Your task to perform on an android device: install app "ColorNote Notepad Notes" Image 0: 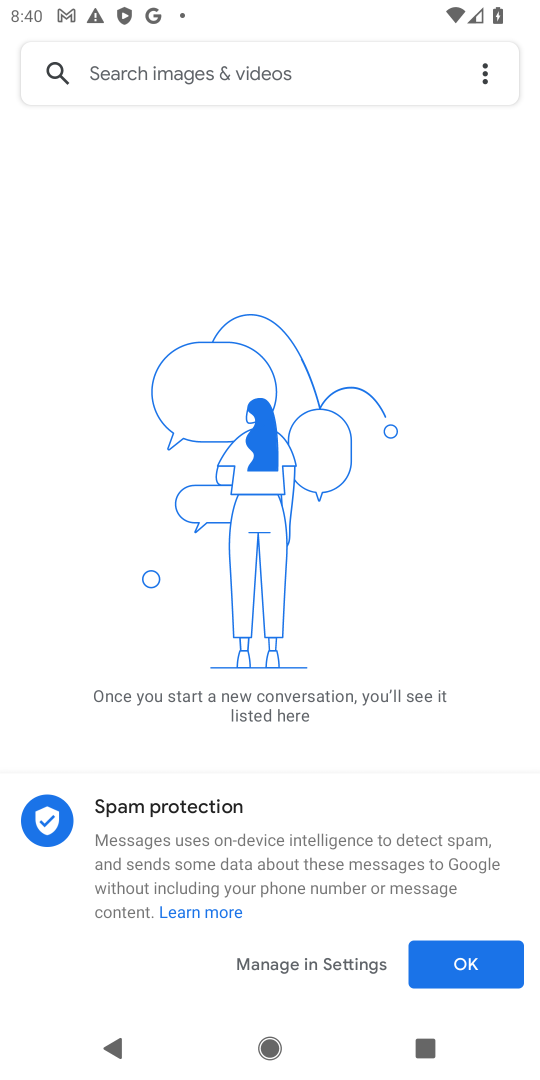
Step 0: press home button
Your task to perform on an android device: install app "ColorNote Notepad Notes" Image 1: 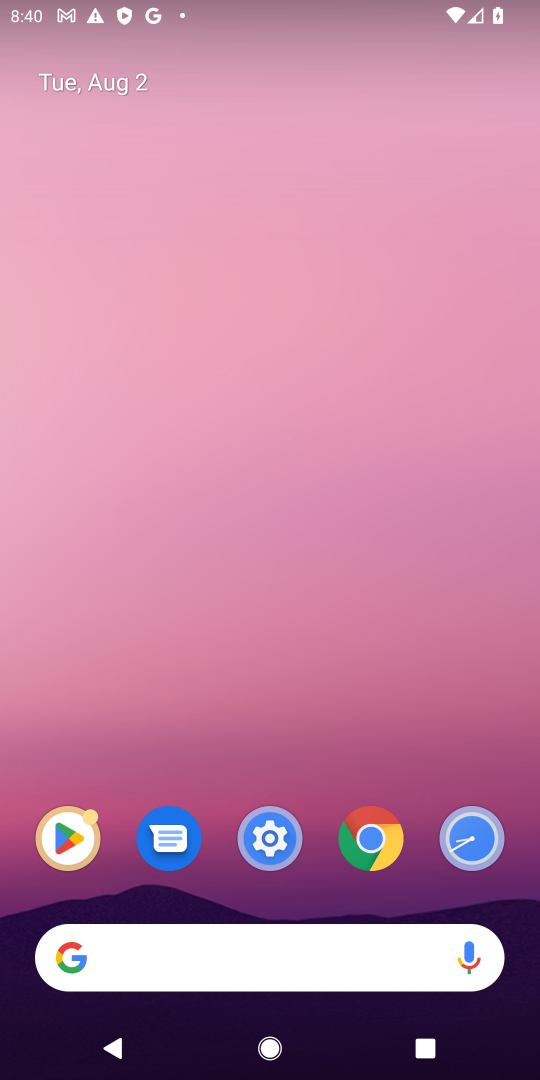
Step 1: drag from (309, 733) to (293, 39)
Your task to perform on an android device: install app "ColorNote Notepad Notes" Image 2: 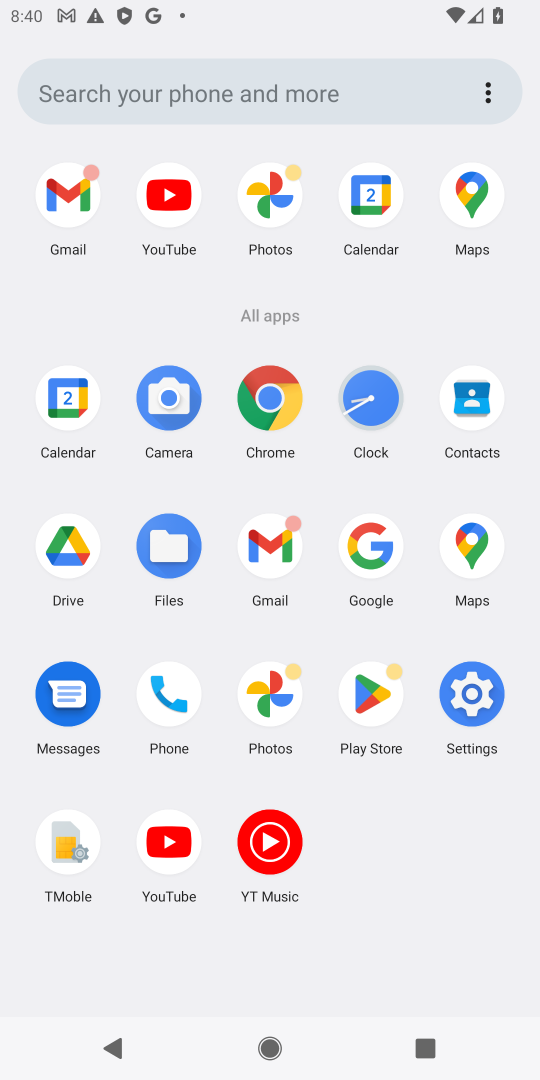
Step 2: click (368, 699)
Your task to perform on an android device: install app "ColorNote Notepad Notes" Image 3: 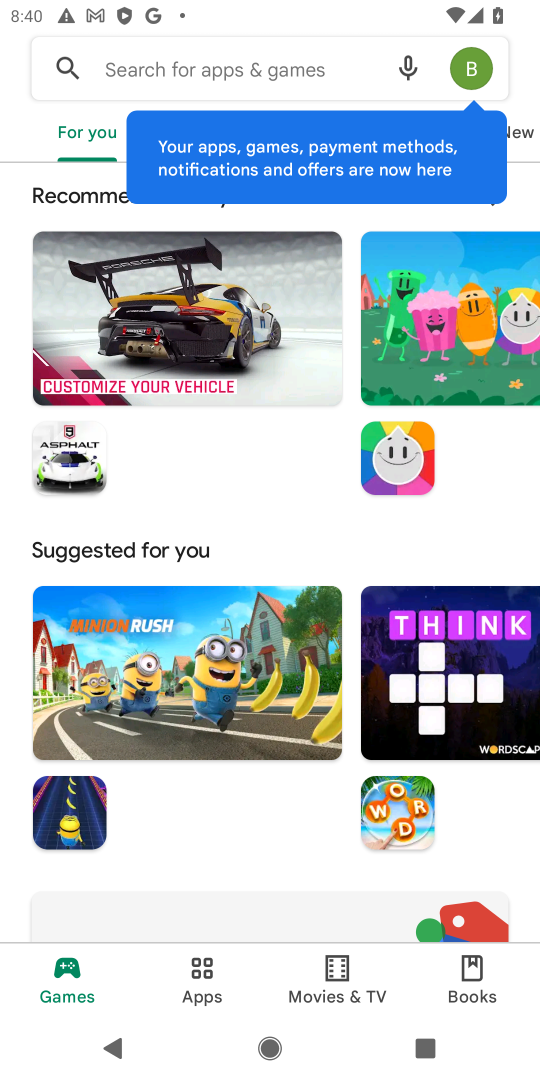
Step 3: click (309, 53)
Your task to perform on an android device: install app "ColorNote Notepad Notes" Image 4: 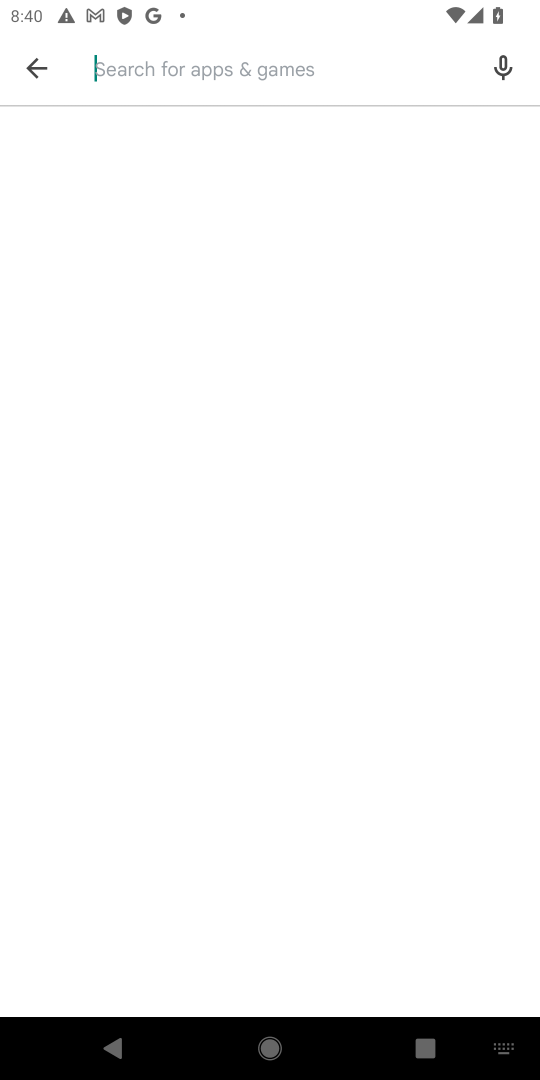
Step 4: type "ColorNote Notepad Notes"
Your task to perform on an android device: install app "ColorNote Notepad Notes" Image 5: 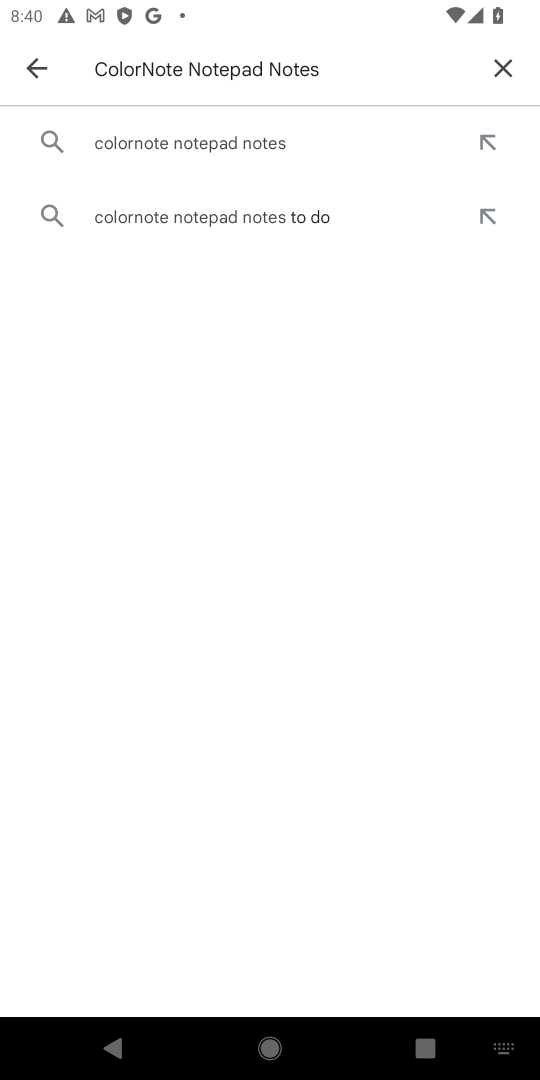
Step 5: click (256, 143)
Your task to perform on an android device: install app "ColorNote Notepad Notes" Image 6: 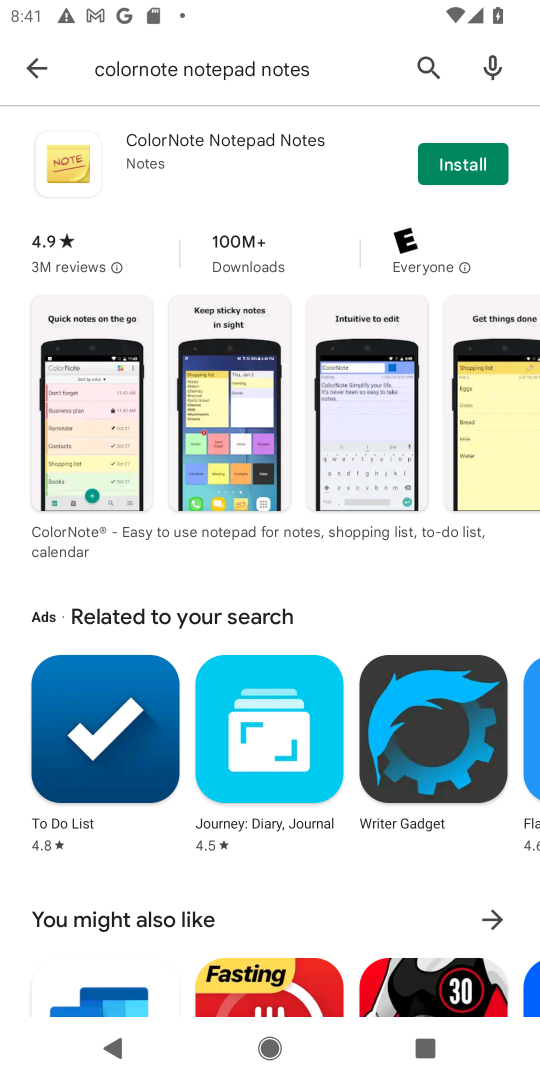
Step 6: click (457, 160)
Your task to perform on an android device: install app "ColorNote Notepad Notes" Image 7: 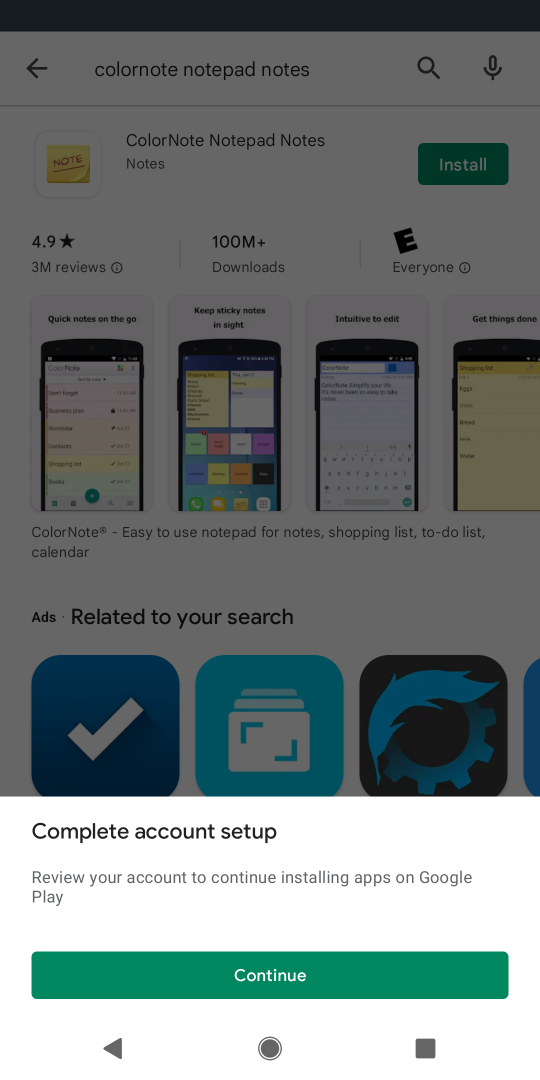
Step 7: click (306, 974)
Your task to perform on an android device: install app "ColorNote Notepad Notes" Image 8: 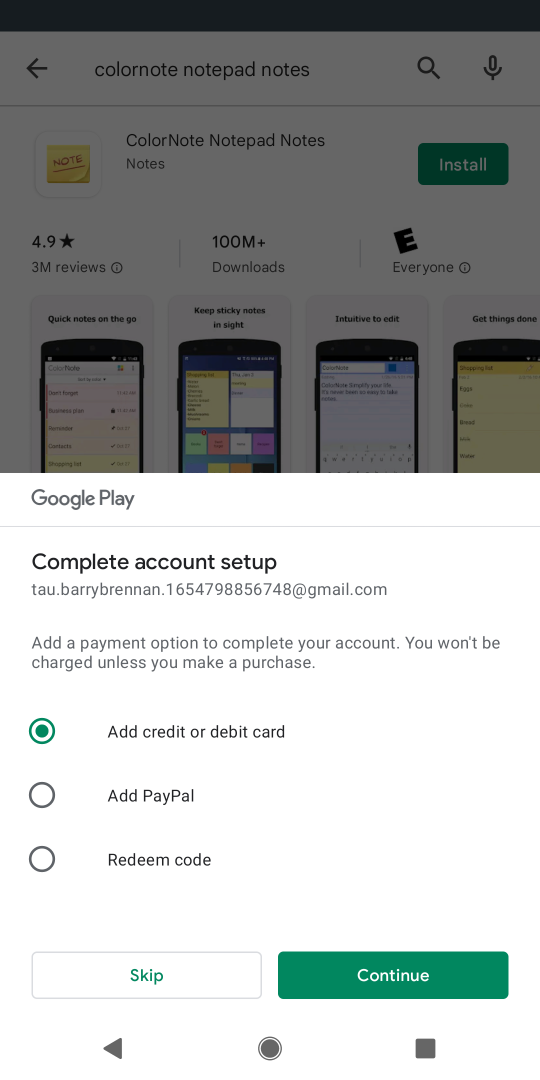
Step 8: click (124, 981)
Your task to perform on an android device: install app "ColorNote Notepad Notes" Image 9: 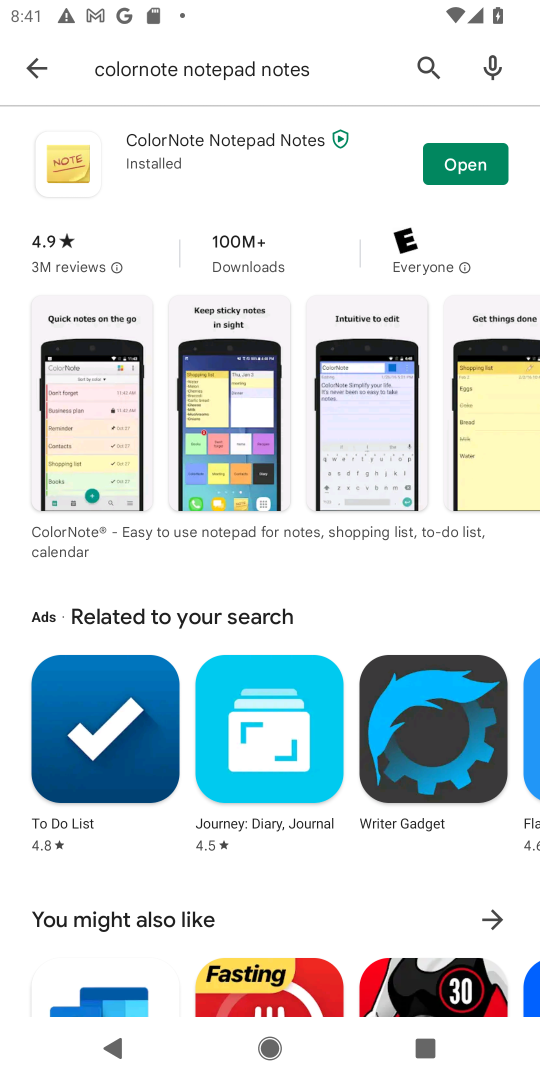
Step 9: task complete